Your task to perform on an android device: Open Maps and search for coffee Image 0: 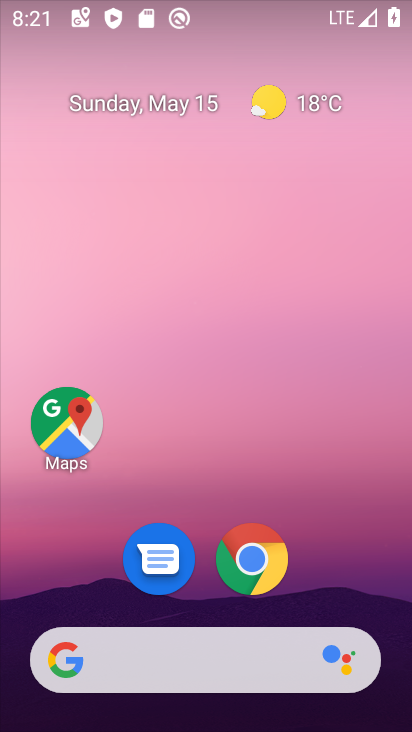
Step 0: click (37, 431)
Your task to perform on an android device: Open Maps and search for coffee Image 1: 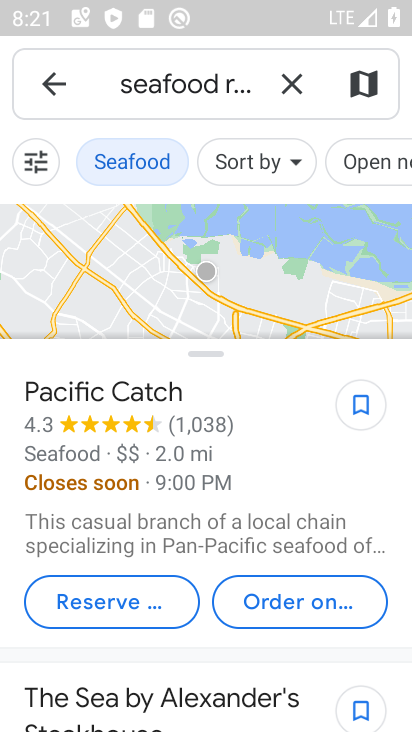
Step 1: click (296, 84)
Your task to perform on an android device: Open Maps and search for coffee Image 2: 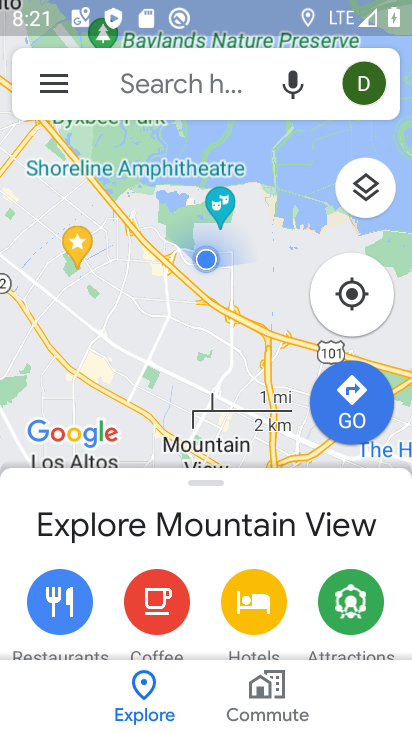
Step 2: click (156, 79)
Your task to perform on an android device: Open Maps and search for coffee Image 3: 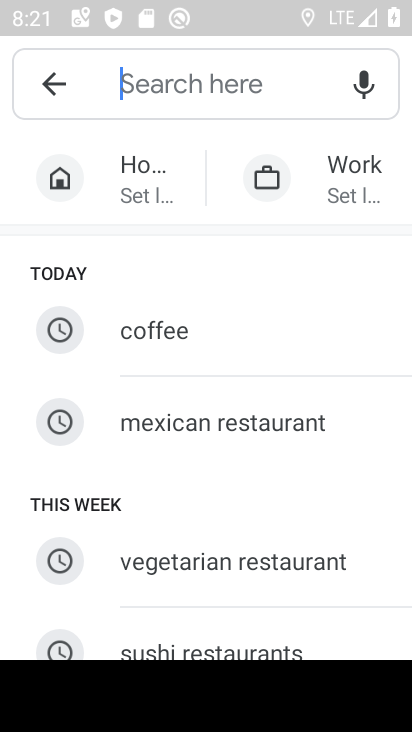
Step 3: click (178, 337)
Your task to perform on an android device: Open Maps and search for coffee Image 4: 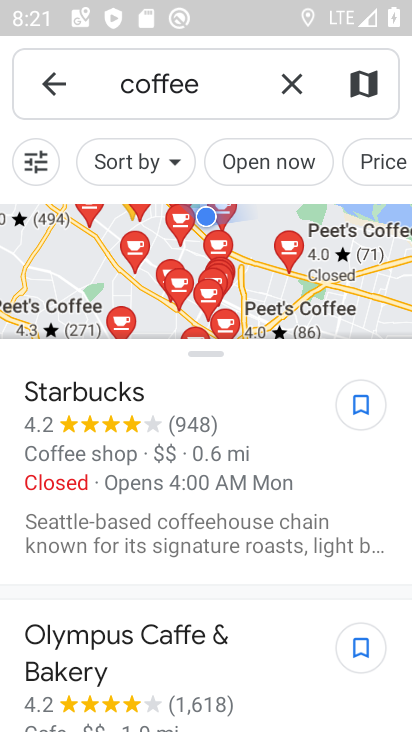
Step 4: task complete